Your task to perform on an android device: turn off smart reply in the gmail app Image 0: 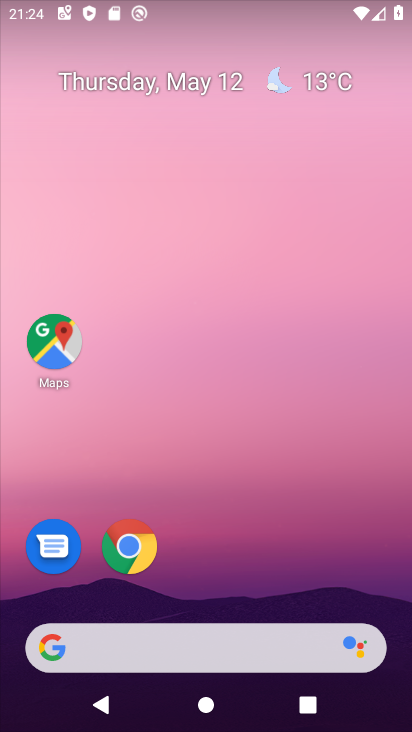
Step 0: drag from (279, 574) to (299, 71)
Your task to perform on an android device: turn off smart reply in the gmail app Image 1: 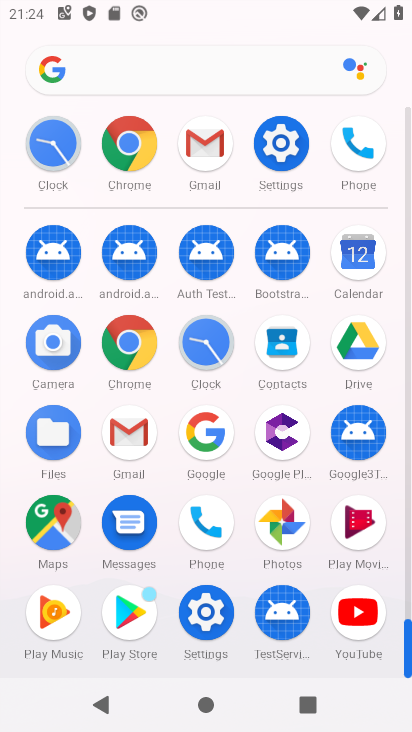
Step 1: click (209, 144)
Your task to perform on an android device: turn off smart reply in the gmail app Image 2: 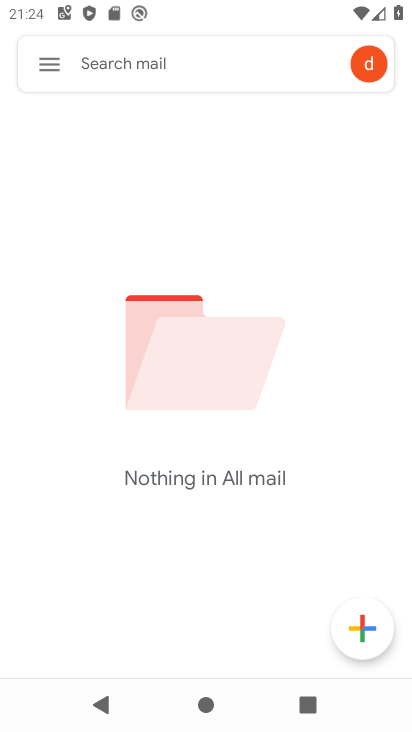
Step 2: click (47, 65)
Your task to perform on an android device: turn off smart reply in the gmail app Image 3: 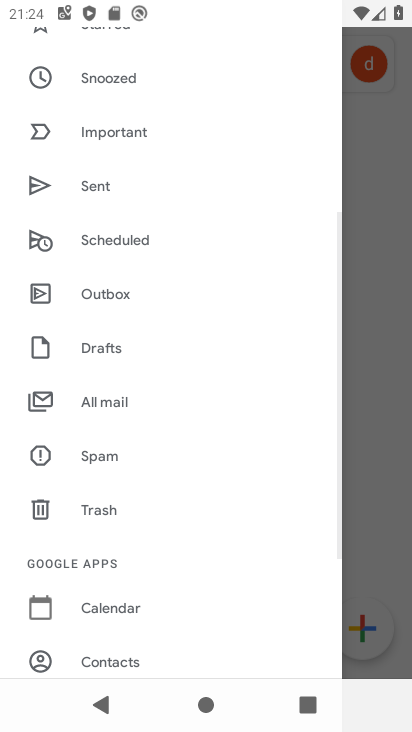
Step 3: drag from (191, 596) to (223, 240)
Your task to perform on an android device: turn off smart reply in the gmail app Image 4: 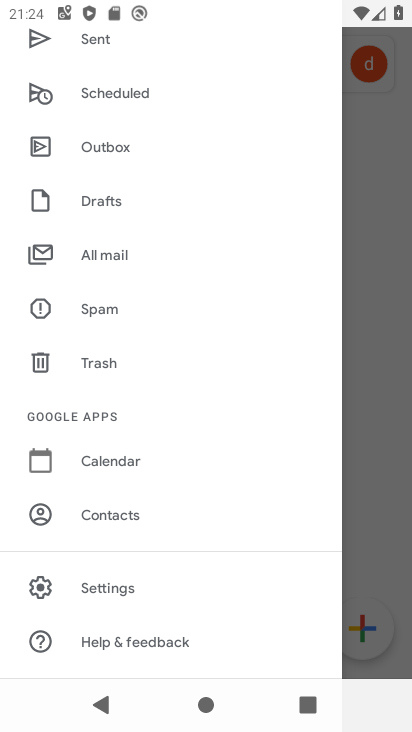
Step 4: click (112, 581)
Your task to perform on an android device: turn off smart reply in the gmail app Image 5: 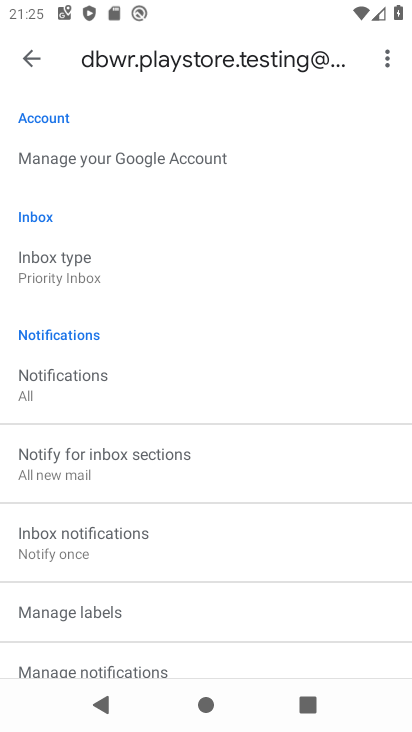
Step 5: drag from (253, 602) to (255, 200)
Your task to perform on an android device: turn off smart reply in the gmail app Image 6: 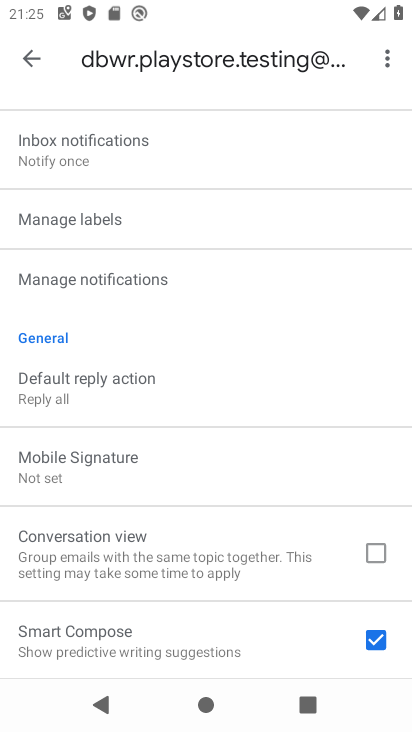
Step 6: drag from (249, 579) to (250, 319)
Your task to perform on an android device: turn off smart reply in the gmail app Image 7: 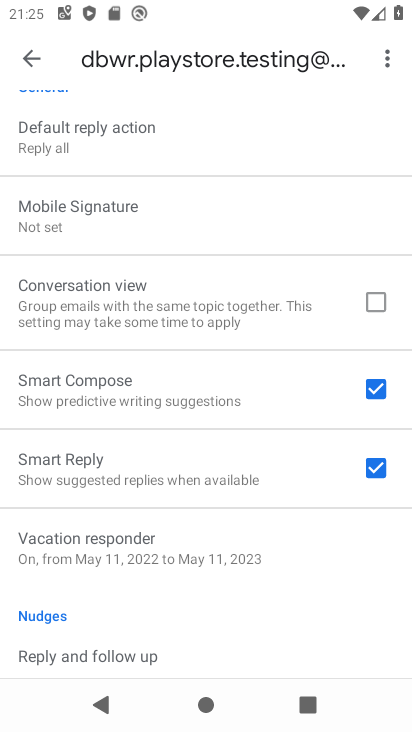
Step 7: click (383, 472)
Your task to perform on an android device: turn off smart reply in the gmail app Image 8: 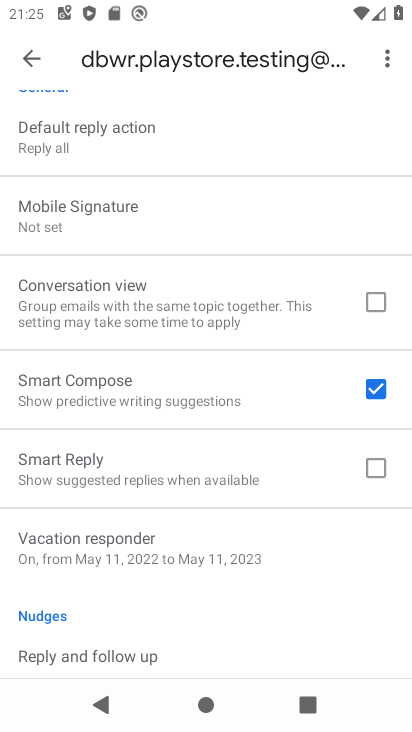
Step 8: task complete